Your task to perform on an android device: Add "macbook pro 15 inch" to the cart on ebay.com, then select checkout. Image 0: 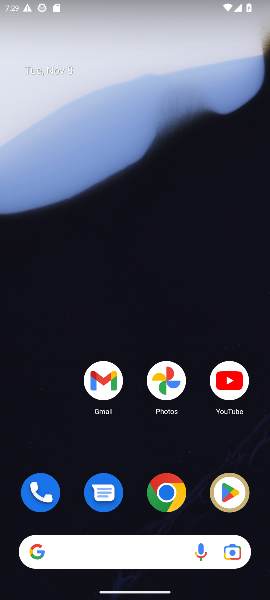
Step 0: click (175, 496)
Your task to perform on an android device: Add "macbook pro 15 inch" to the cart on ebay.com, then select checkout. Image 1: 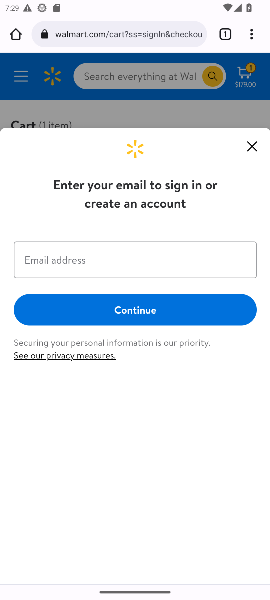
Step 1: click (125, 35)
Your task to perform on an android device: Add "macbook pro 15 inch" to the cart on ebay.com, then select checkout. Image 2: 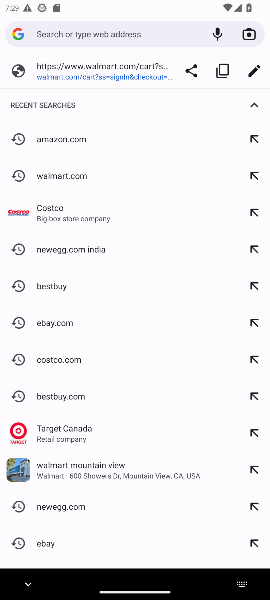
Step 2: click (58, 318)
Your task to perform on an android device: Add "macbook pro 15 inch" to the cart on ebay.com, then select checkout. Image 3: 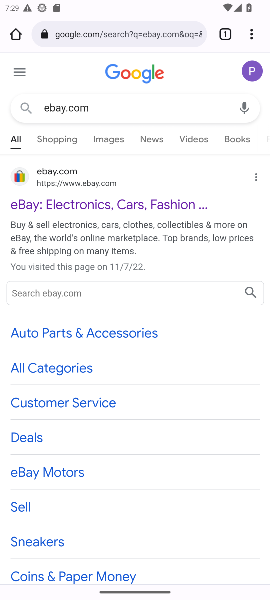
Step 3: click (96, 174)
Your task to perform on an android device: Add "macbook pro 15 inch" to the cart on ebay.com, then select checkout. Image 4: 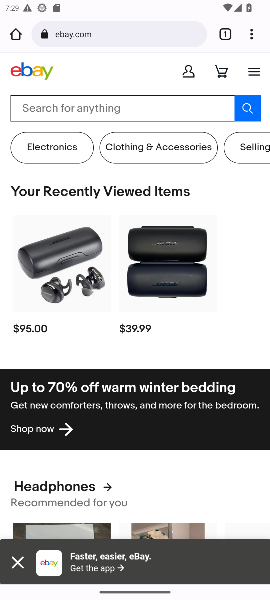
Step 4: click (138, 109)
Your task to perform on an android device: Add "macbook pro 15 inch" to the cart on ebay.com, then select checkout. Image 5: 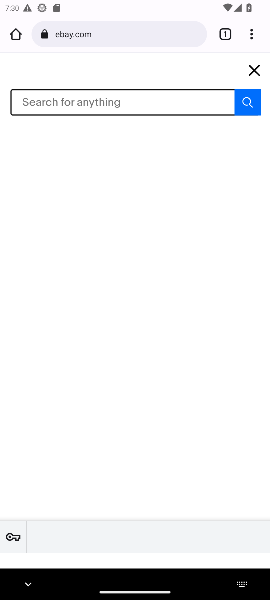
Step 5: type "macbook pro 15 inch"
Your task to perform on an android device: Add "macbook pro 15 inch" to the cart on ebay.com, then select checkout. Image 6: 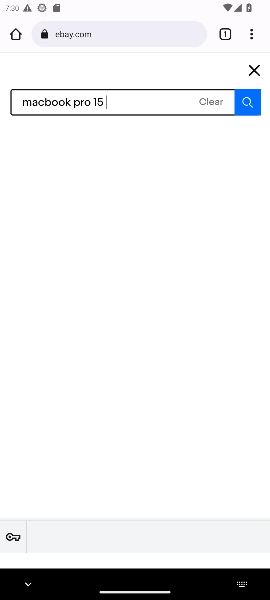
Step 6: press enter
Your task to perform on an android device: Add "macbook pro 15 inch" to the cart on ebay.com, then select checkout. Image 7: 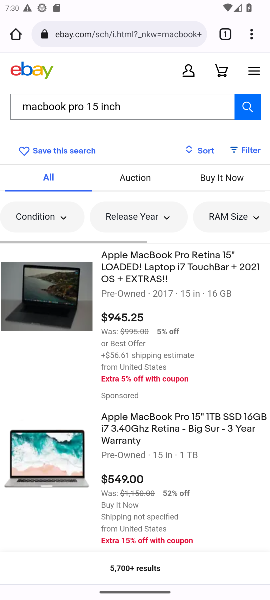
Step 7: click (36, 463)
Your task to perform on an android device: Add "macbook pro 15 inch" to the cart on ebay.com, then select checkout. Image 8: 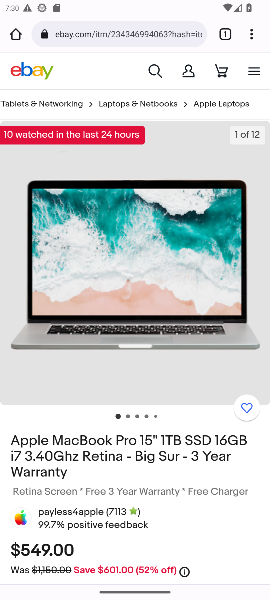
Step 8: drag from (168, 416) to (124, 226)
Your task to perform on an android device: Add "macbook pro 15 inch" to the cart on ebay.com, then select checkout. Image 9: 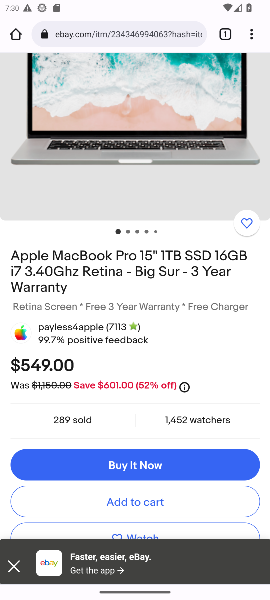
Step 9: drag from (171, 328) to (158, 211)
Your task to perform on an android device: Add "macbook pro 15 inch" to the cart on ebay.com, then select checkout. Image 10: 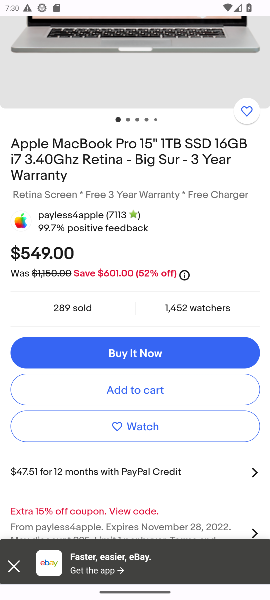
Step 10: click (144, 391)
Your task to perform on an android device: Add "macbook pro 15 inch" to the cart on ebay.com, then select checkout. Image 11: 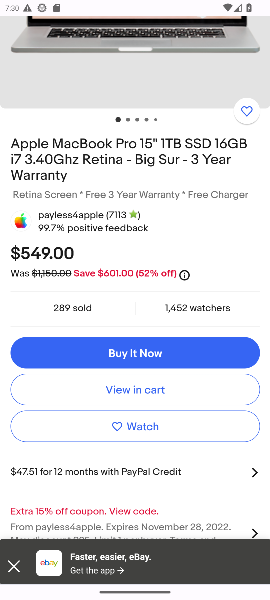
Step 11: click (145, 386)
Your task to perform on an android device: Add "macbook pro 15 inch" to the cart on ebay.com, then select checkout. Image 12: 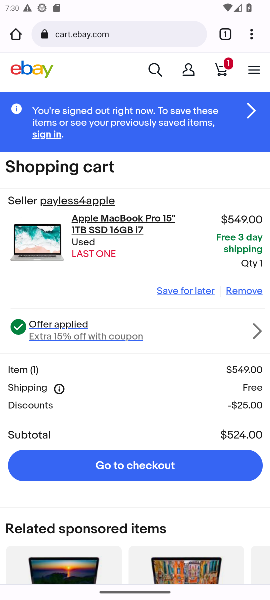
Step 12: click (142, 460)
Your task to perform on an android device: Add "macbook pro 15 inch" to the cart on ebay.com, then select checkout. Image 13: 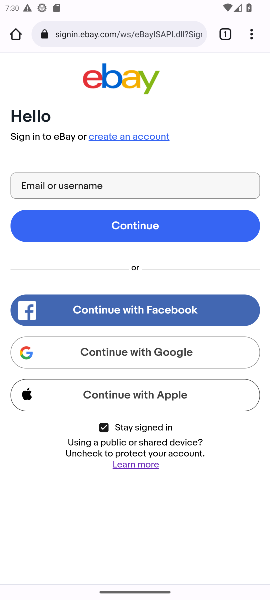
Step 13: task complete